Your task to perform on an android device: Open calendar and show me the fourth week of next month Image 0: 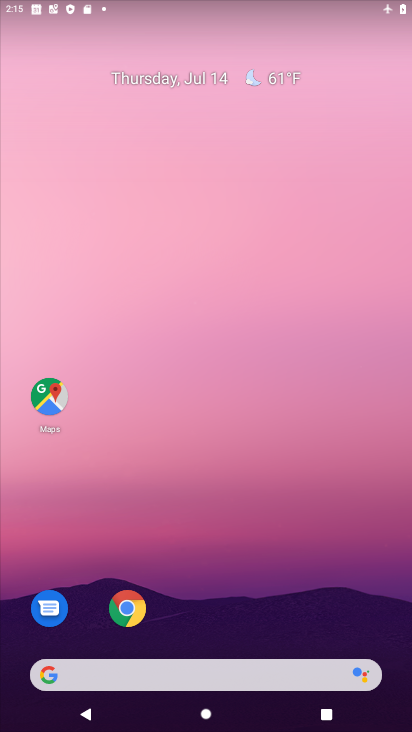
Step 0: press home button
Your task to perform on an android device: Open calendar and show me the fourth week of next month Image 1: 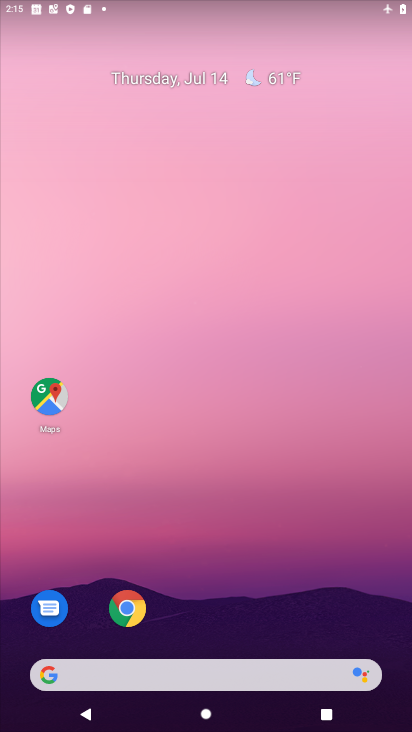
Step 1: drag from (245, 711) to (297, 220)
Your task to perform on an android device: Open calendar and show me the fourth week of next month Image 2: 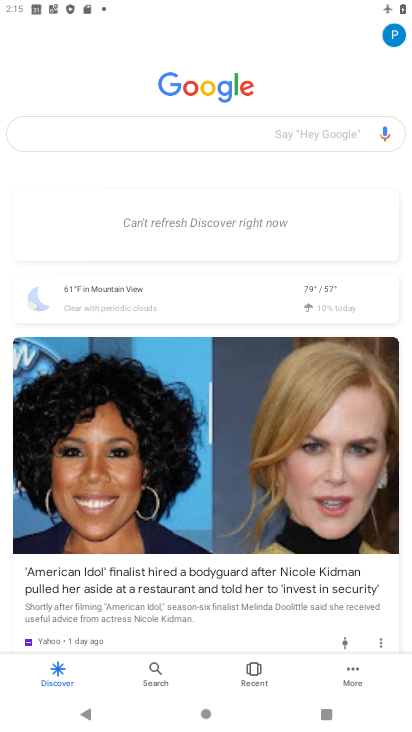
Step 2: press home button
Your task to perform on an android device: Open calendar and show me the fourth week of next month Image 3: 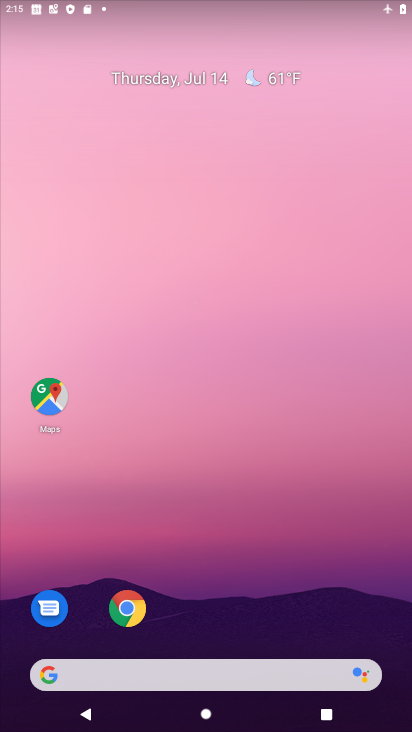
Step 3: drag from (240, 674) to (301, 85)
Your task to perform on an android device: Open calendar and show me the fourth week of next month Image 4: 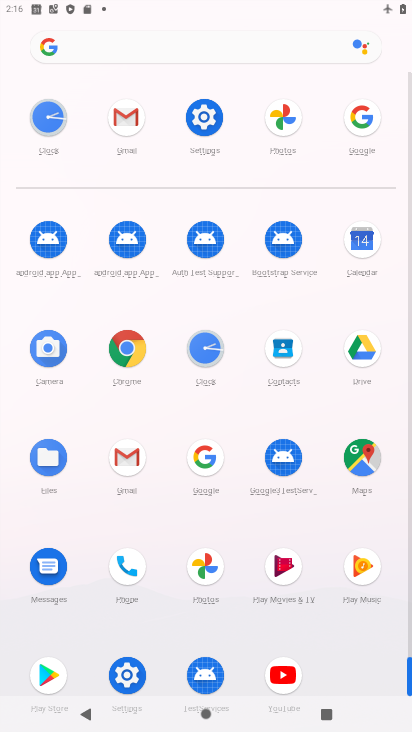
Step 4: click (360, 241)
Your task to perform on an android device: Open calendar and show me the fourth week of next month Image 5: 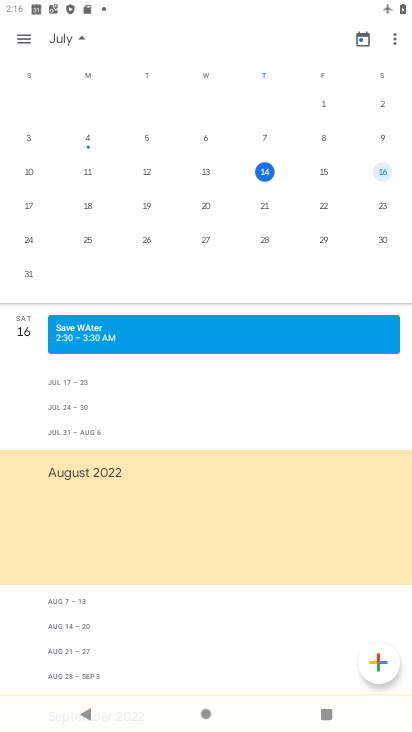
Step 5: drag from (357, 192) to (0, 233)
Your task to perform on an android device: Open calendar and show me the fourth week of next month Image 6: 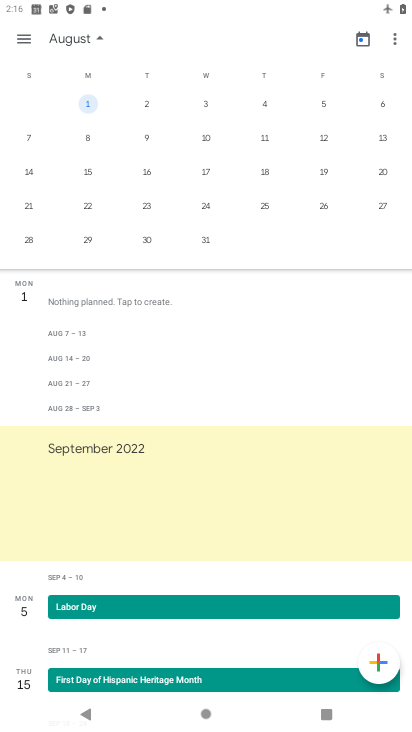
Step 6: click (95, 210)
Your task to perform on an android device: Open calendar and show me the fourth week of next month Image 7: 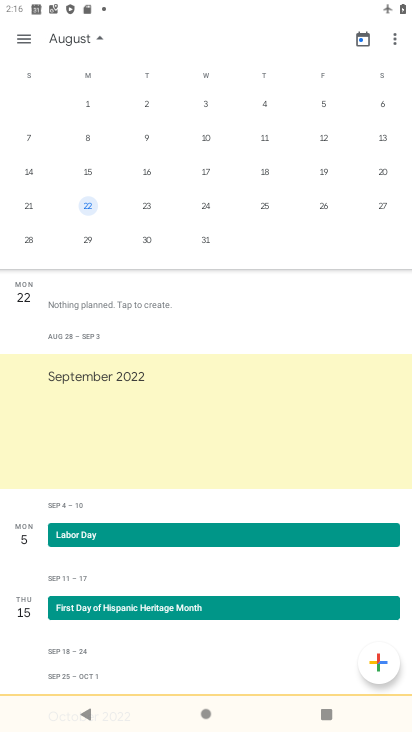
Step 7: click (19, 41)
Your task to perform on an android device: Open calendar and show me the fourth week of next month Image 8: 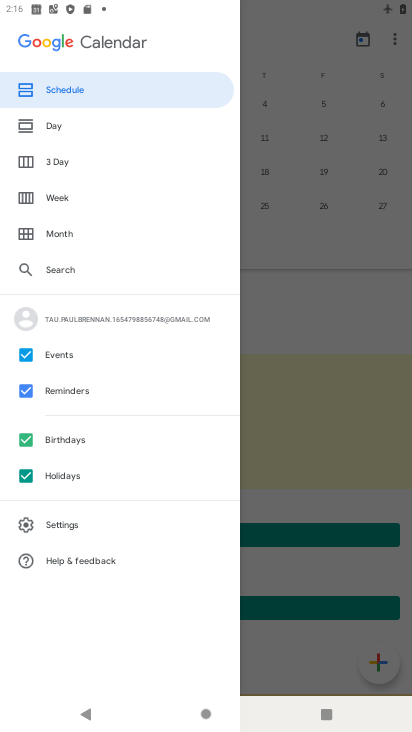
Step 8: click (56, 196)
Your task to perform on an android device: Open calendar and show me the fourth week of next month Image 9: 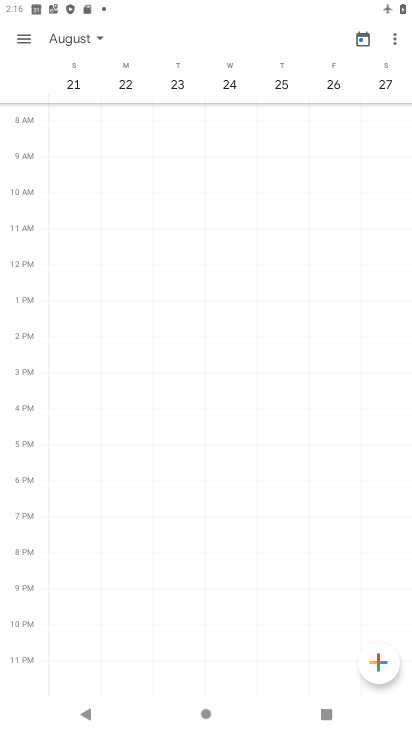
Step 9: task complete